Your task to perform on an android device: open a bookmark in the chrome app Image 0: 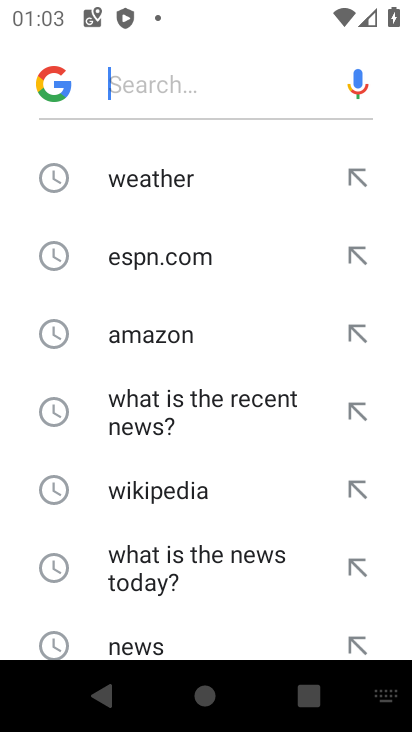
Step 0: press home button
Your task to perform on an android device: open a bookmark in the chrome app Image 1: 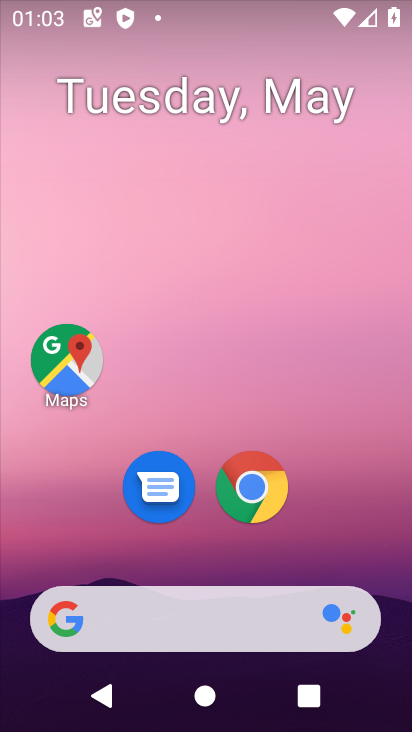
Step 1: click (249, 483)
Your task to perform on an android device: open a bookmark in the chrome app Image 2: 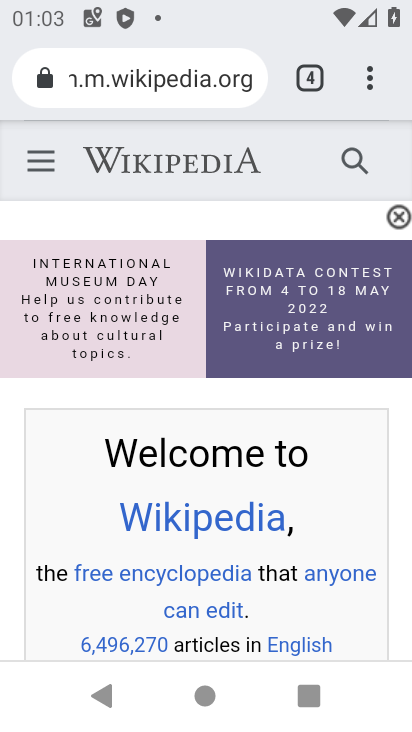
Step 2: click (378, 79)
Your task to perform on an android device: open a bookmark in the chrome app Image 3: 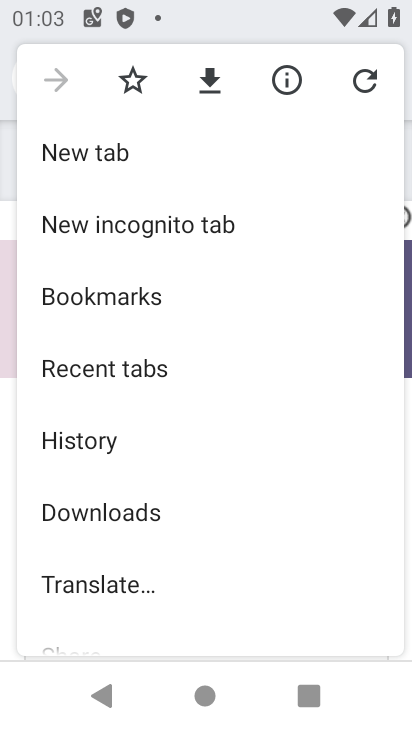
Step 3: click (153, 286)
Your task to perform on an android device: open a bookmark in the chrome app Image 4: 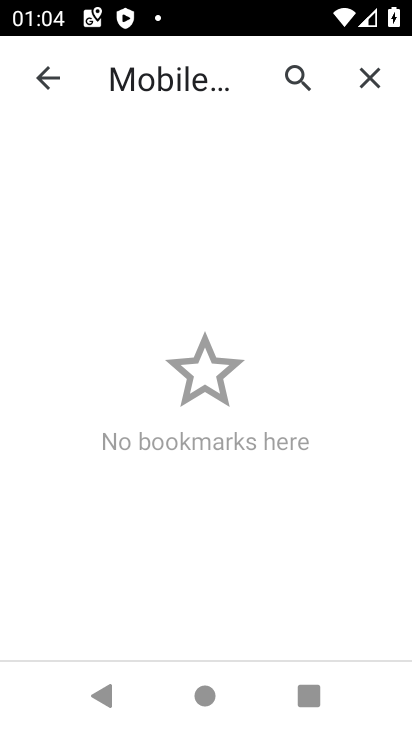
Step 4: task complete